Your task to perform on an android device: Open network settings Image 0: 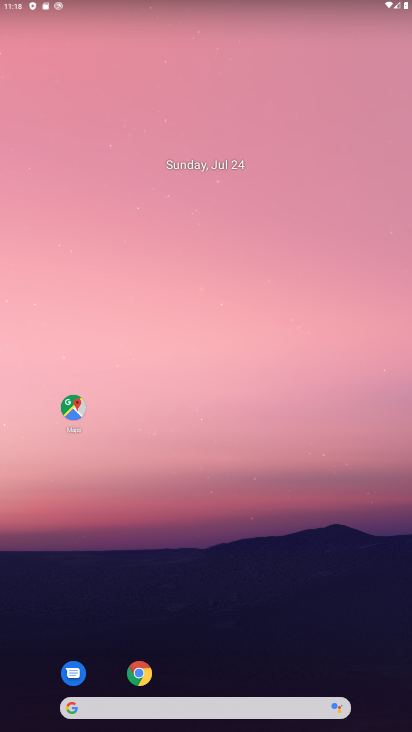
Step 0: drag from (290, 510) to (271, 46)
Your task to perform on an android device: Open network settings Image 1: 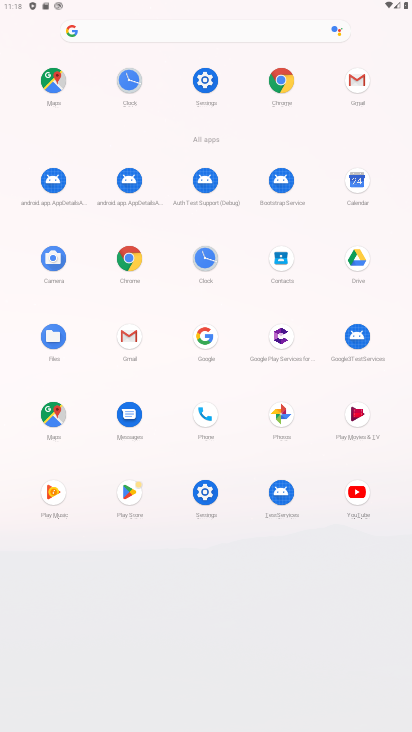
Step 1: click (209, 73)
Your task to perform on an android device: Open network settings Image 2: 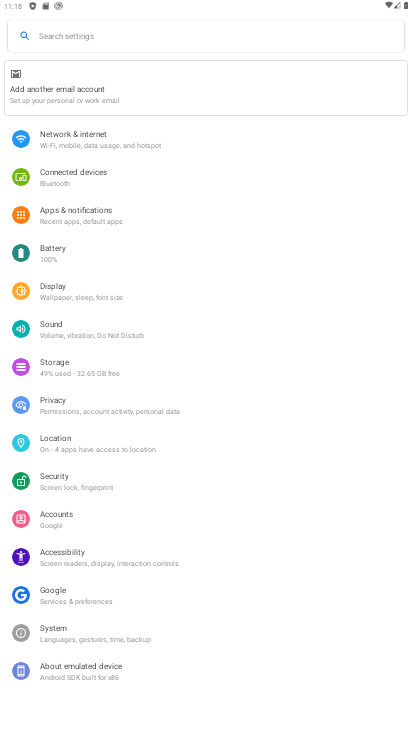
Step 2: click (77, 143)
Your task to perform on an android device: Open network settings Image 3: 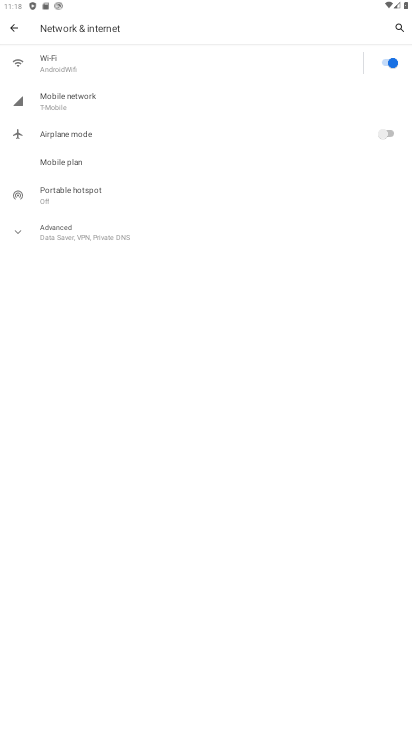
Step 3: task complete